Your task to perform on an android device: Search for seafood restaurants on Google Maps Image 0: 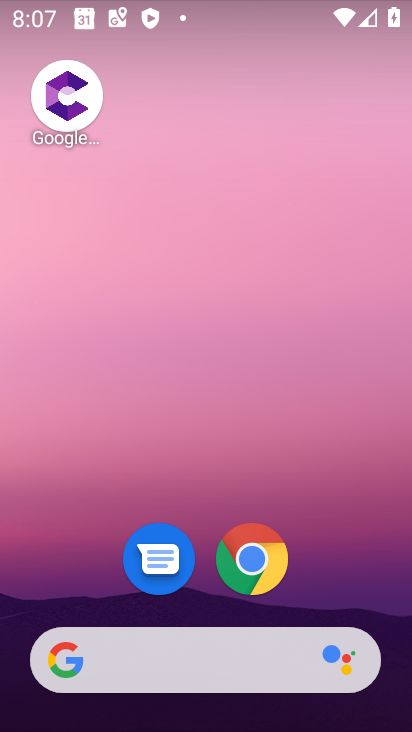
Step 0: drag from (203, 721) to (180, 182)
Your task to perform on an android device: Search for seafood restaurants on Google Maps Image 1: 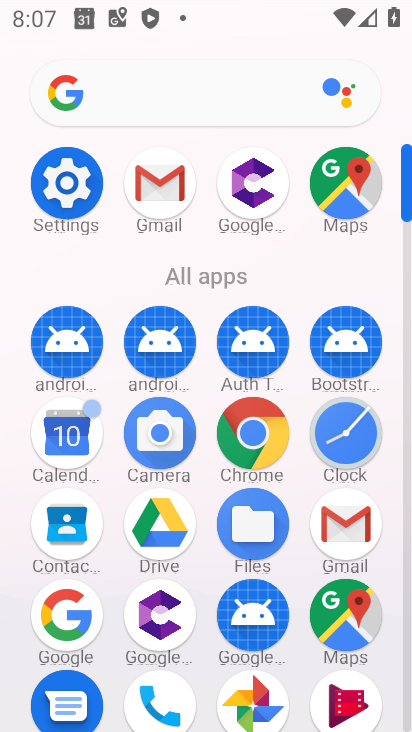
Step 1: click (341, 616)
Your task to perform on an android device: Search for seafood restaurants on Google Maps Image 2: 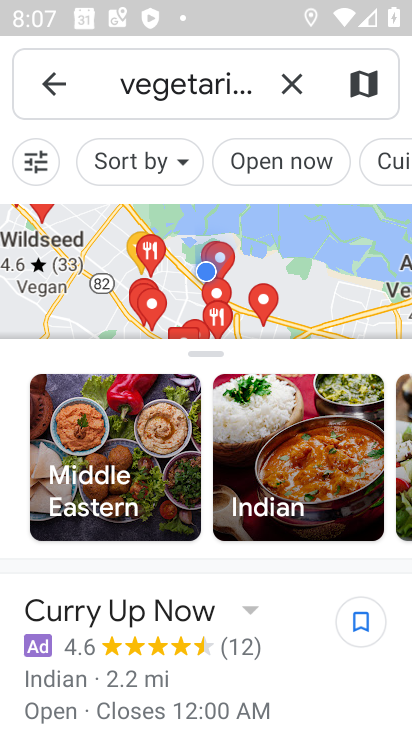
Step 2: click (295, 75)
Your task to perform on an android device: Search for seafood restaurants on Google Maps Image 3: 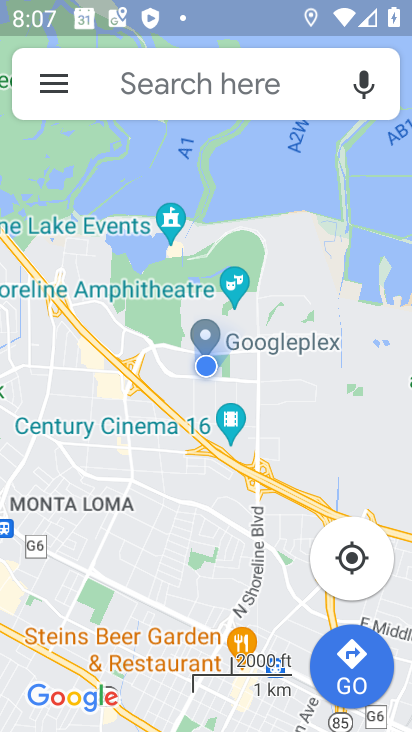
Step 3: click (180, 89)
Your task to perform on an android device: Search for seafood restaurants on Google Maps Image 4: 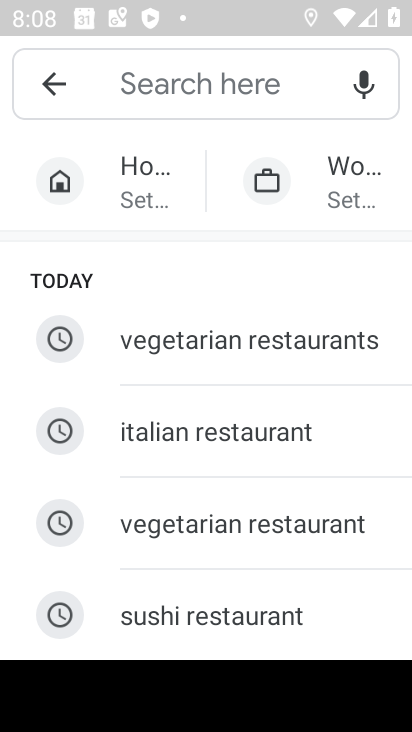
Step 4: type "seafood restaurants"
Your task to perform on an android device: Search for seafood restaurants on Google Maps Image 5: 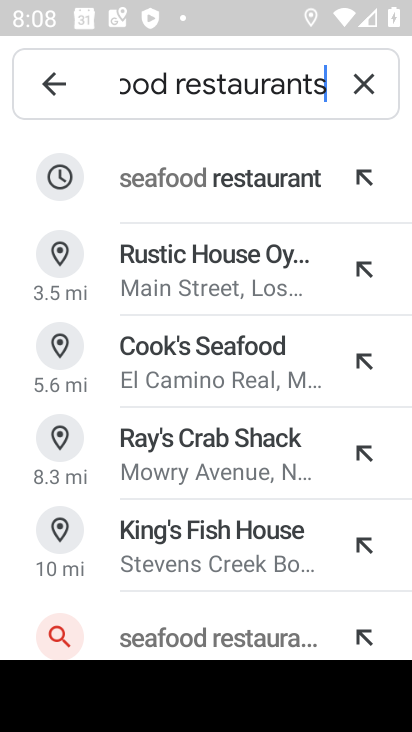
Step 5: click (169, 178)
Your task to perform on an android device: Search for seafood restaurants on Google Maps Image 6: 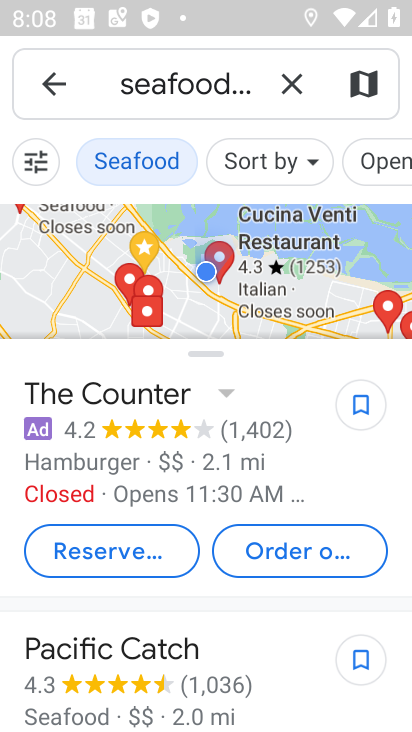
Step 6: task complete